Your task to perform on an android device: move a message to another label in the gmail app Image 0: 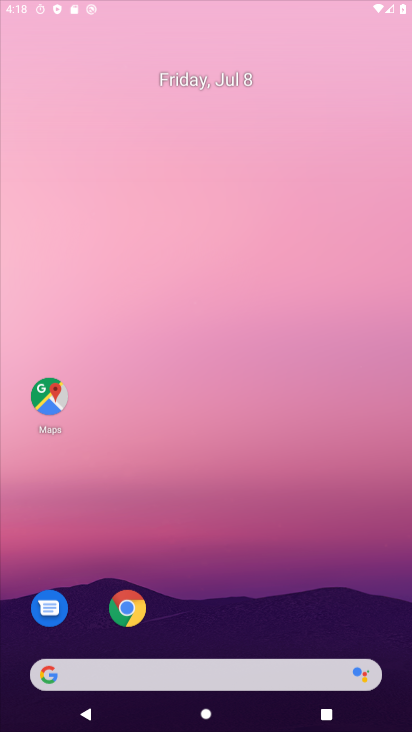
Step 0: press home button
Your task to perform on an android device: move a message to another label in the gmail app Image 1: 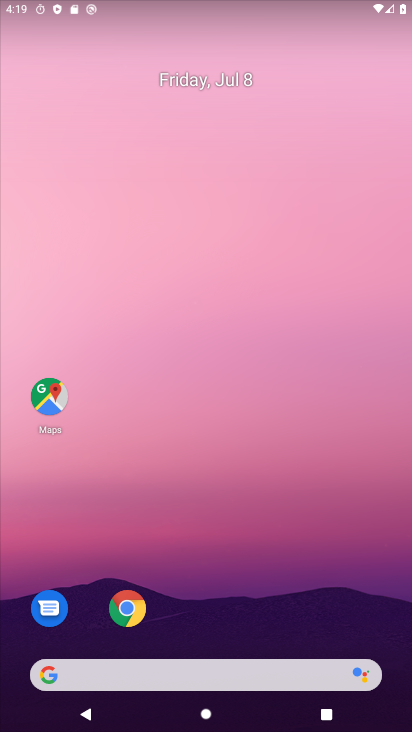
Step 1: drag from (254, 576) to (259, 112)
Your task to perform on an android device: move a message to another label in the gmail app Image 2: 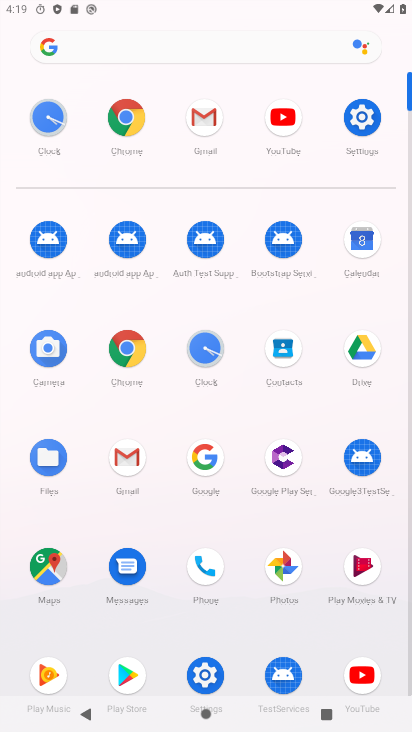
Step 2: click (203, 119)
Your task to perform on an android device: move a message to another label in the gmail app Image 3: 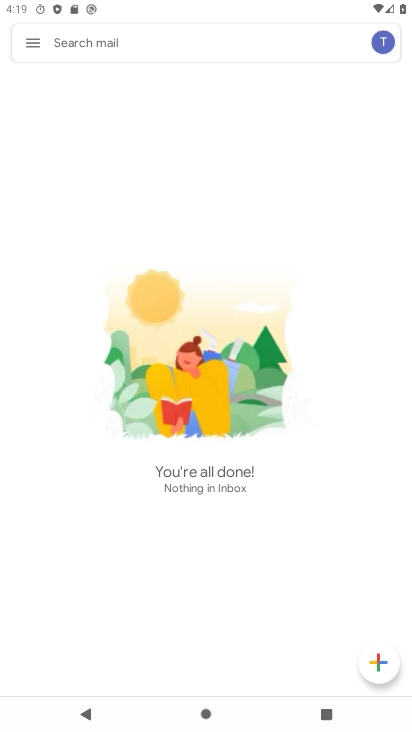
Step 3: click (29, 43)
Your task to perform on an android device: move a message to another label in the gmail app Image 4: 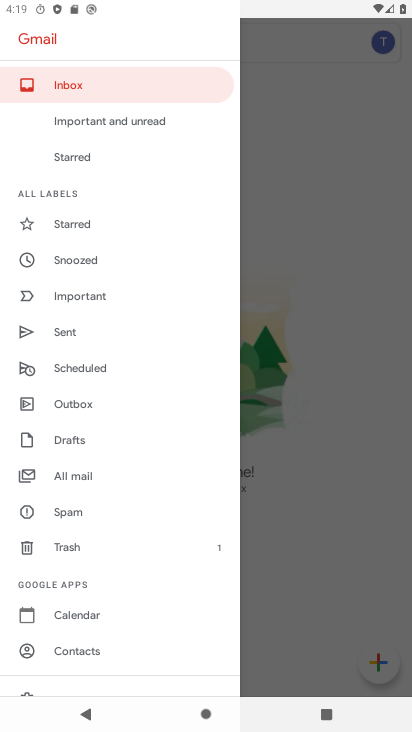
Step 4: click (72, 467)
Your task to perform on an android device: move a message to another label in the gmail app Image 5: 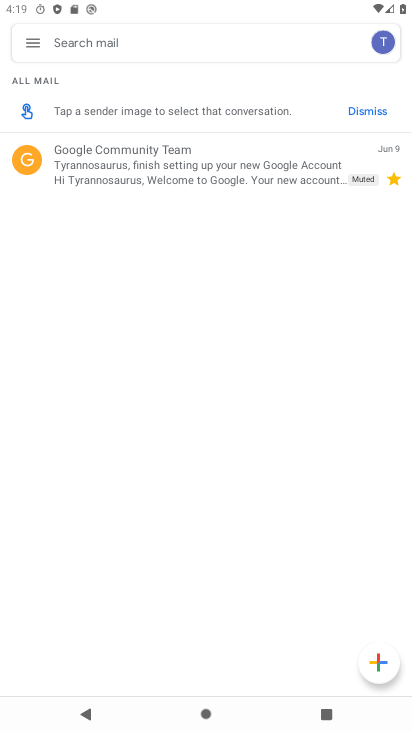
Step 5: click (157, 172)
Your task to perform on an android device: move a message to another label in the gmail app Image 6: 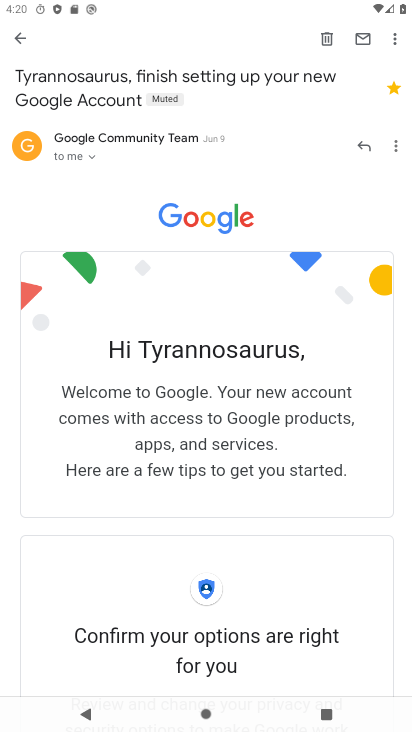
Step 6: click (394, 148)
Your task to perform on an android device: move a message to another label in the gmail app Image 7: 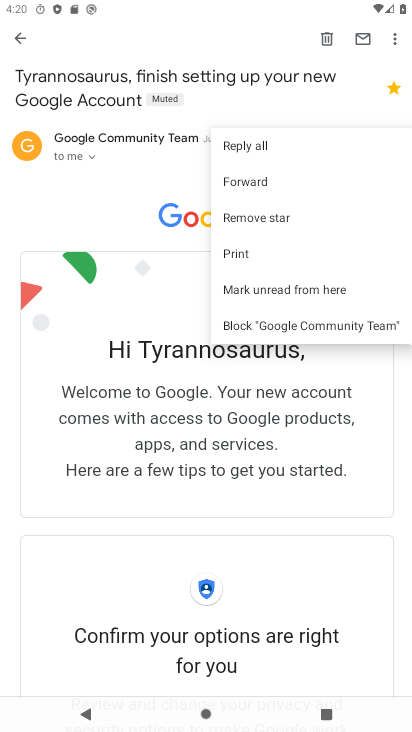
Step 7: click (399, 37)
Your task to perform on an android device: move a message to another label in the gmail app Image 8: 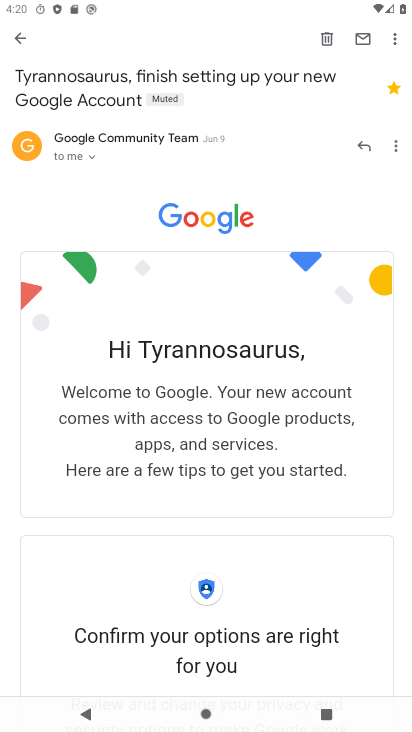
Step 8: click (399, 39)
Your task to perform on an android device: move a message to another label in the gmail app Image 9: 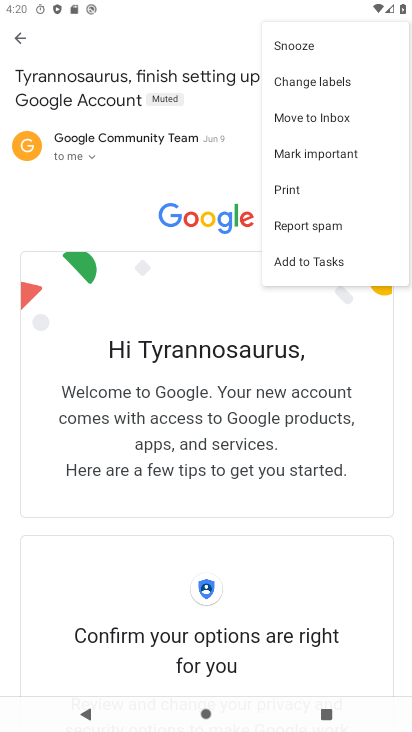
Step 9: click (298, 113)
Your task to perform on an android device: move a message to another label in the gmail app Image 10: 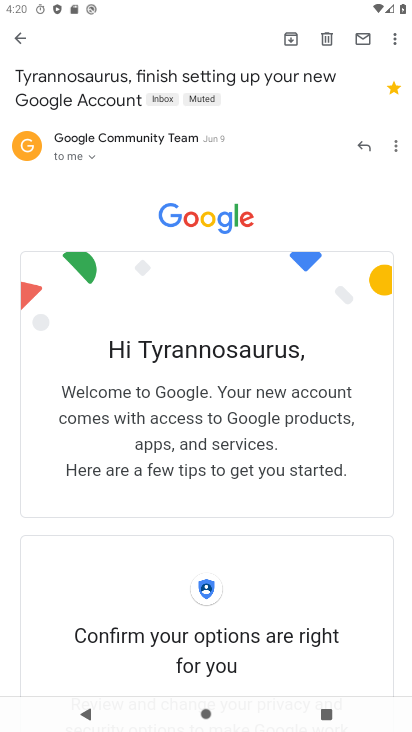
Step 10: task complete